Your task to perform on an android device: Look up the best rated book on Goodreads Image 0: 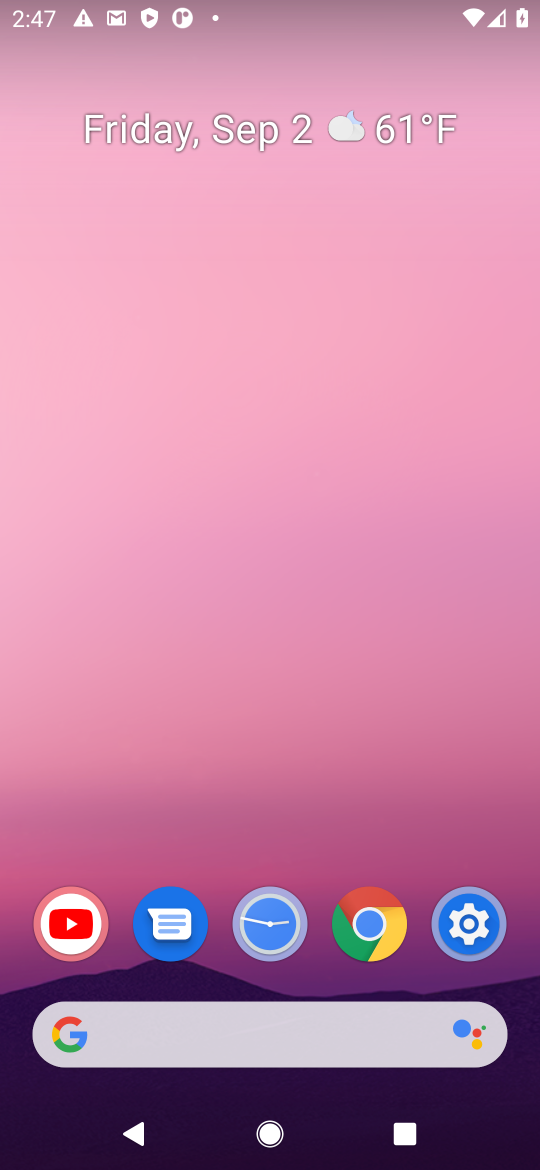
Step 0: click (340, 1043)
Your task to perform on an android device: Look up the best rated book on Goodreads Image 1: 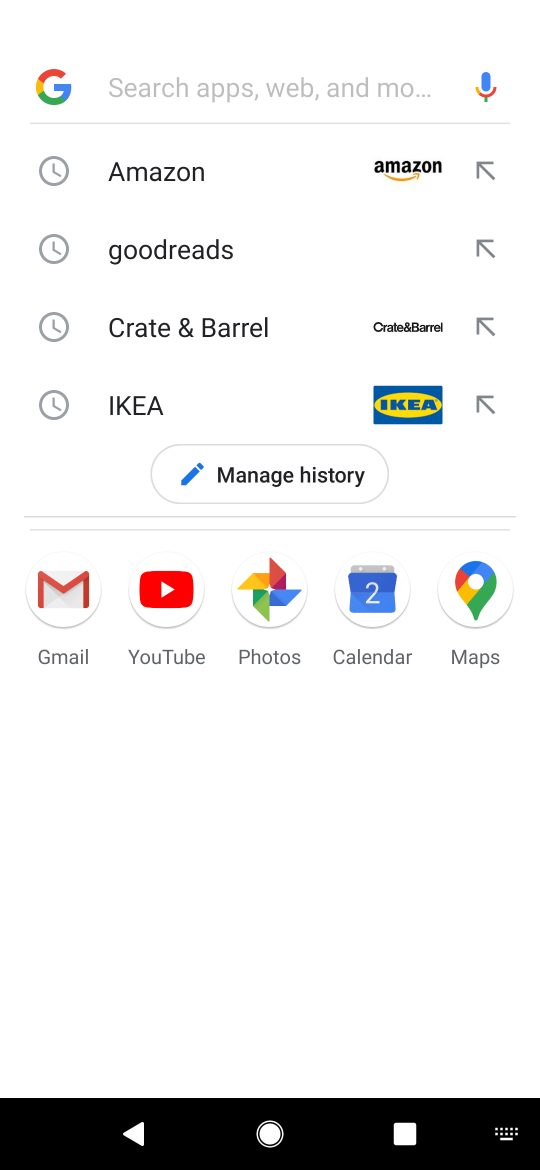
Step 1: click (224, 240)
Your task to perform on an android device: Look up the best rated book on Goodreads Image 2: 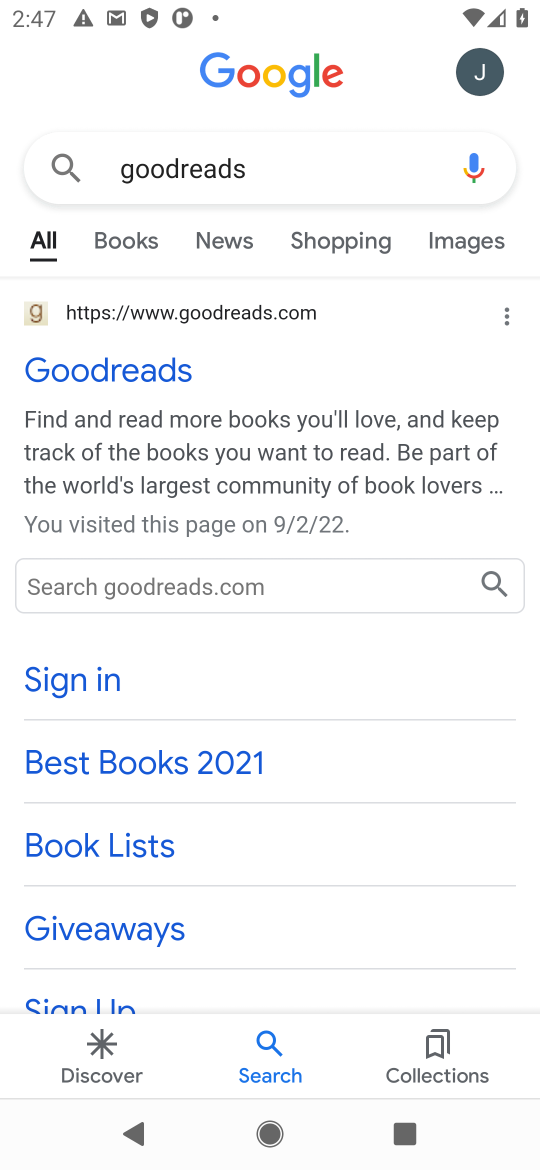
Step 2: click (136, 365)
Your task to perform on an android device: Look up the best rated book on Goodreads Image 3: 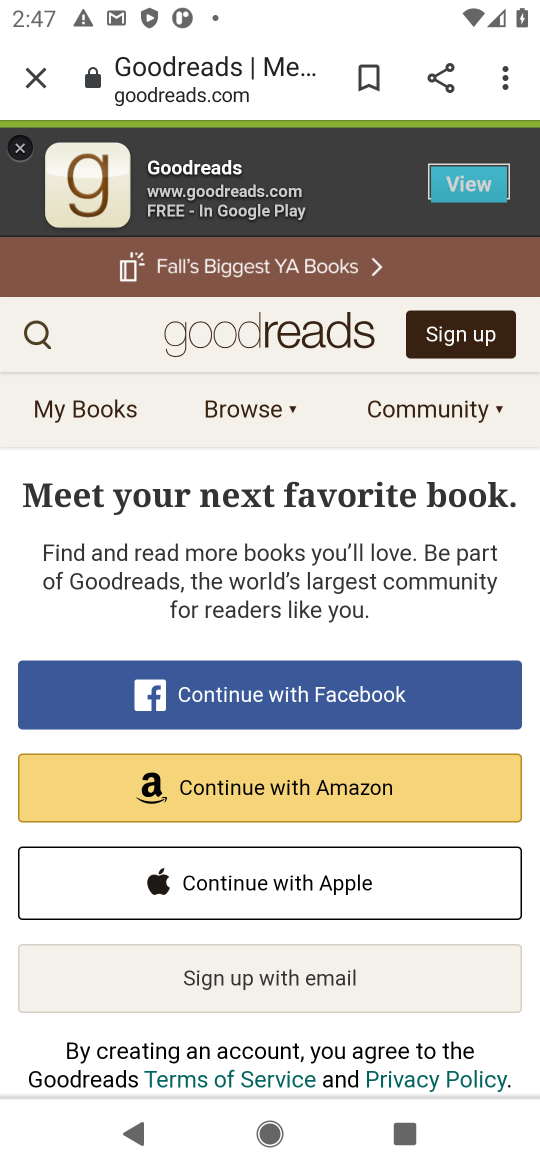
Step 3: click (26, 325)
Your task to perform on an android device: Look up the best rated book on Goodreads Image 4: 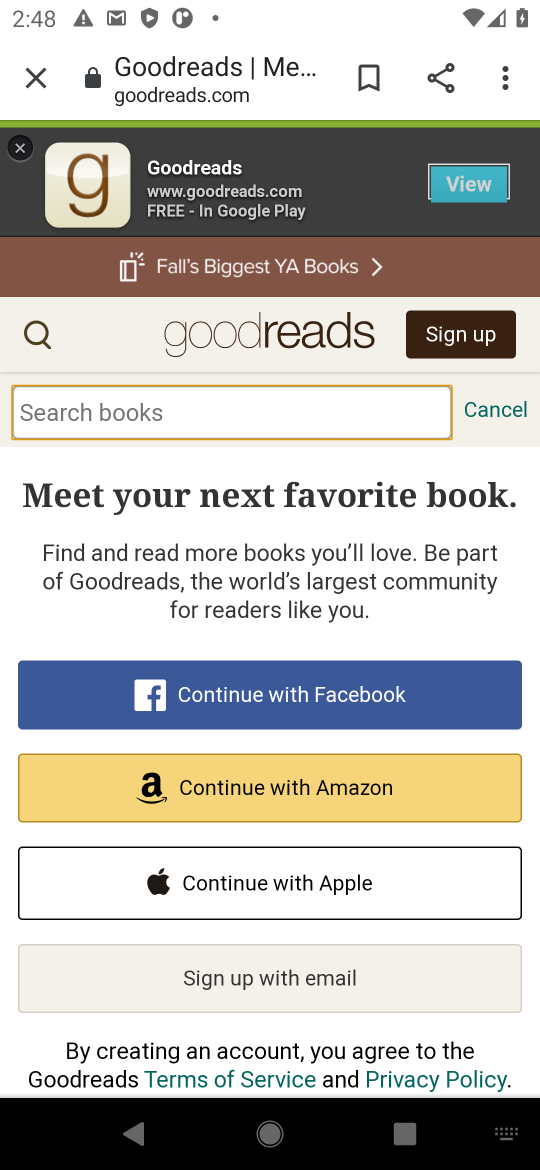
Step 4: type "best rated books"
Your task to perform on an android device: Look up the best rated book on Goodreads Image 5: 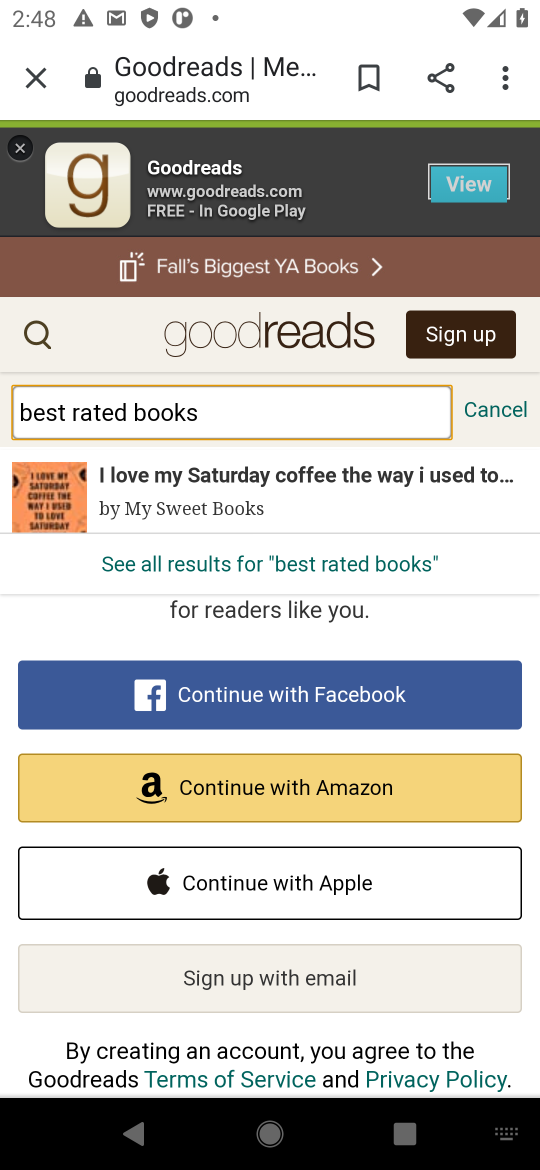
Step 5: task complete